Your task to perform on an android device: install app "Microsoft Excel" Image 0: 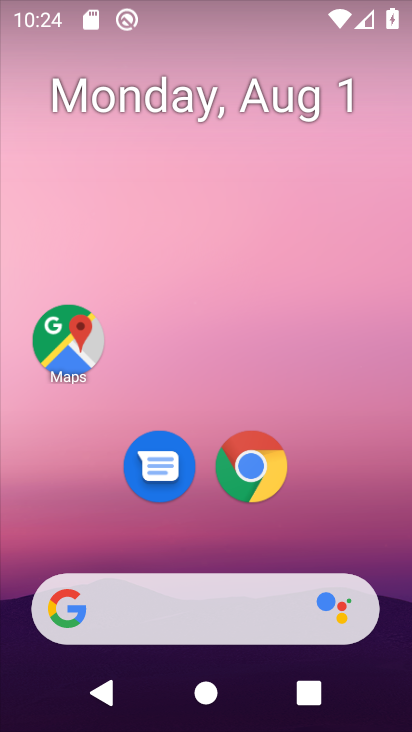
Step 0: drag from (228, 723) to (201, 111)
Your task to perform on an android device: install app "Microsoft Excel" Image 1: 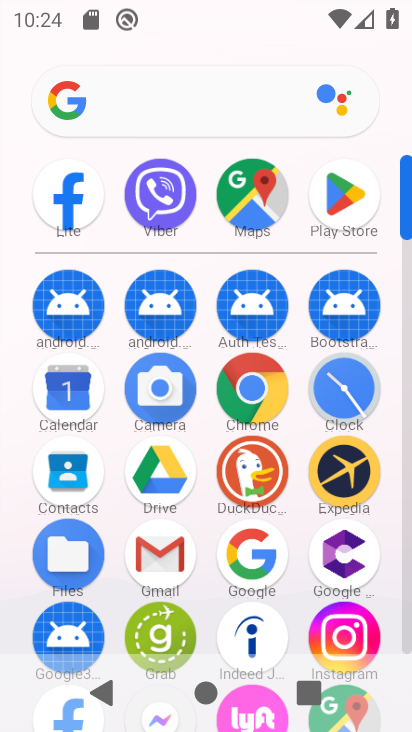
Step 1: click (340, 202)
Your task to perform on an android device: install app "Microsoft Excel" Image 2: 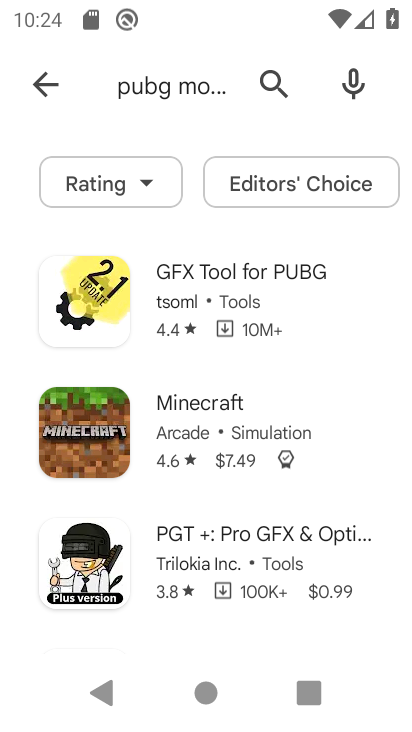
Step 2: click (267, 74)
Your task to perform on an android device: install app "Microsoft Excel" Image 3: 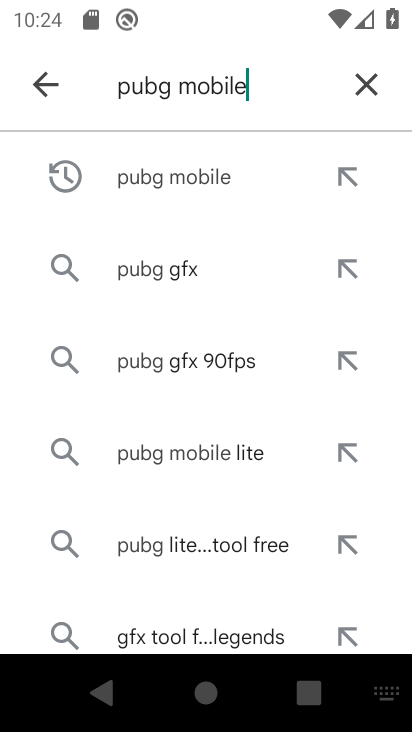
Step 3: click (366, 87)
Your task to perform on an android device: install app "Microsoft Excel" Image 4: 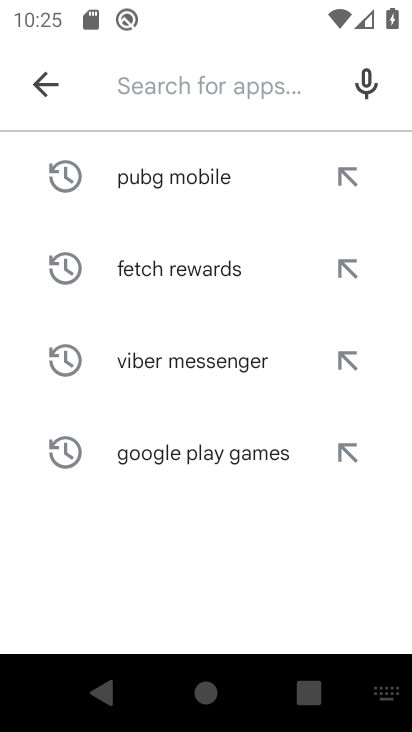
Step 4: type "Microsoft Excel"
Your task to perform on an android device: install app "Microsoft Excel" Image 5: 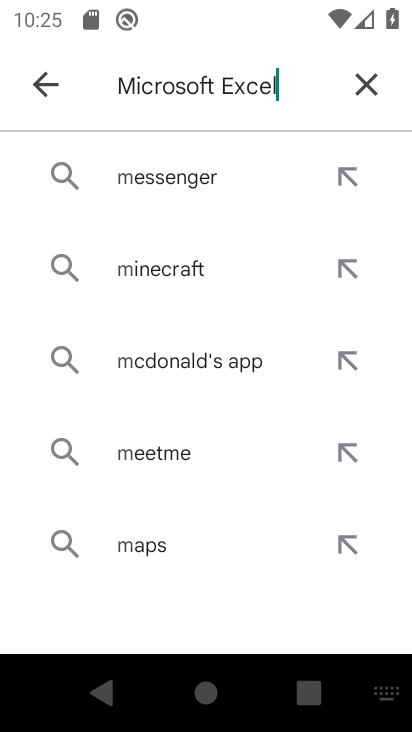
Step 5: type ""
Your task to perform on an android device: install app "Microsoft Excel" Image 6: 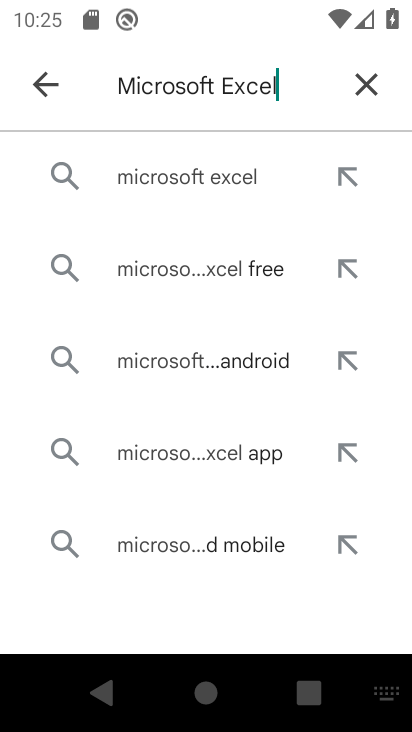
Step 6: click (193, 168)
Your task to perform on an android device: install app "Microsoft Excel" Image 7: 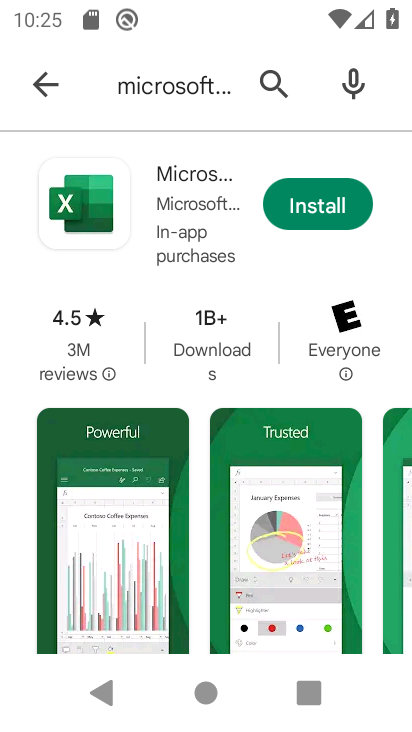
Step 7: click (312, 207)
Your task to perform on an android device: install app "Microsoft Excel" Image 8: 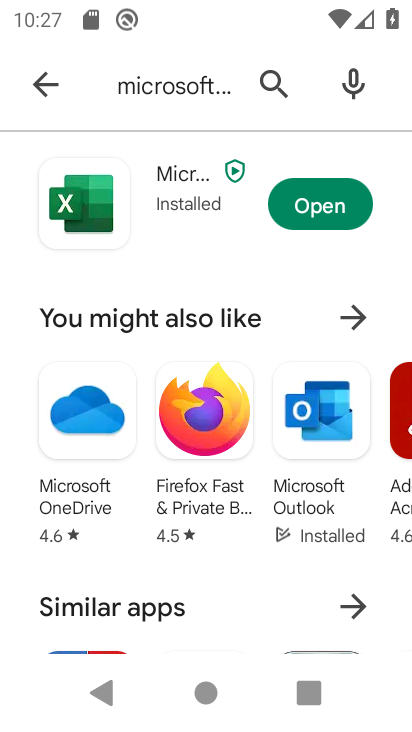
Step 8: task complete